Your task to perform on an android device: open a bookmark in the chrome app Image 0: 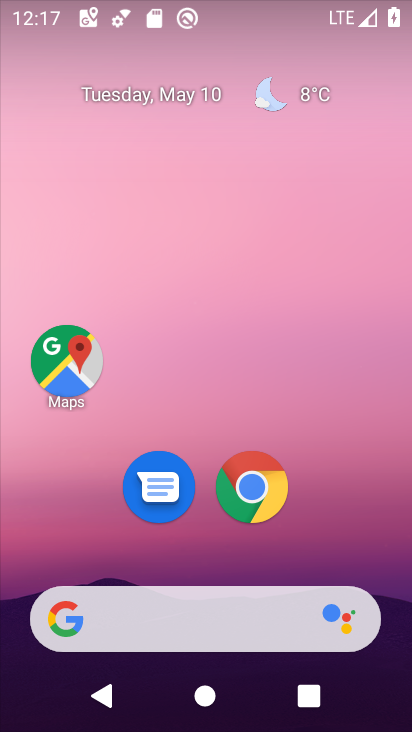
Step 0: drag from (213, 472) to (264, 86)
Your task to perform on an android device: open a bookmark in the chrome app Image 1: 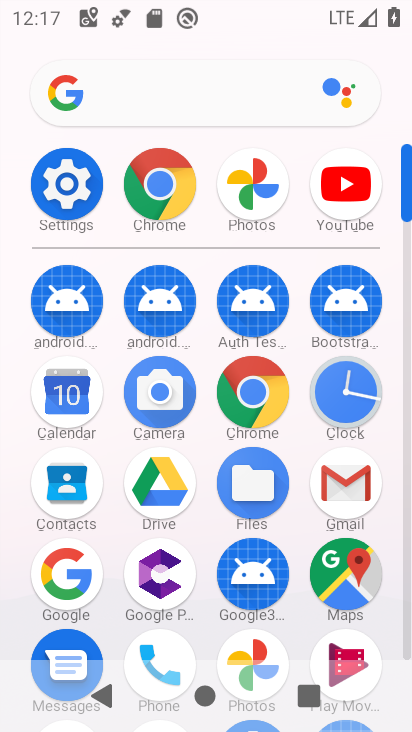
Step 1: click (245, 384)
Your task to perform on an android device: open a bookmark in the chrome app Image 2: 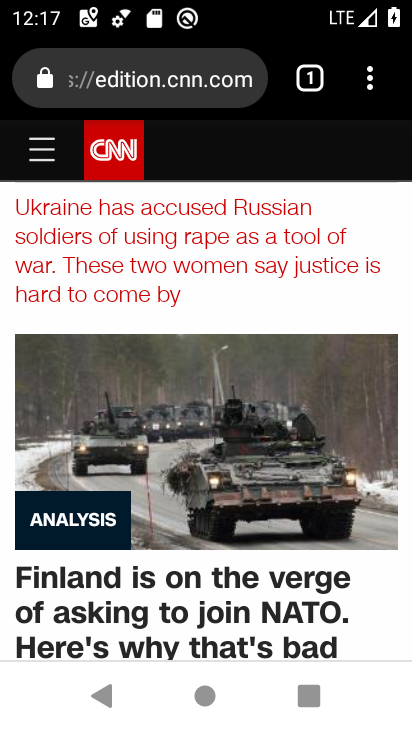
Step 2: click (372, 73)
Your task to perform on an android device: open a bookmark in the chrome app Image 3: 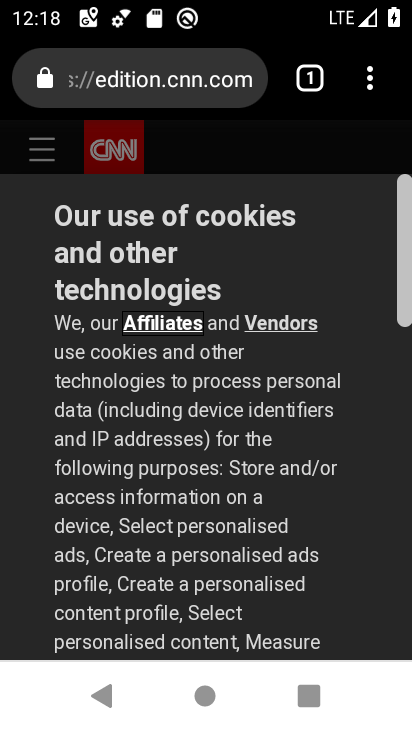
Step 3: drag from (203, 598) to (247, 149)
Your task to perform on an android device: open a bookmark in the chrome app Image 4: 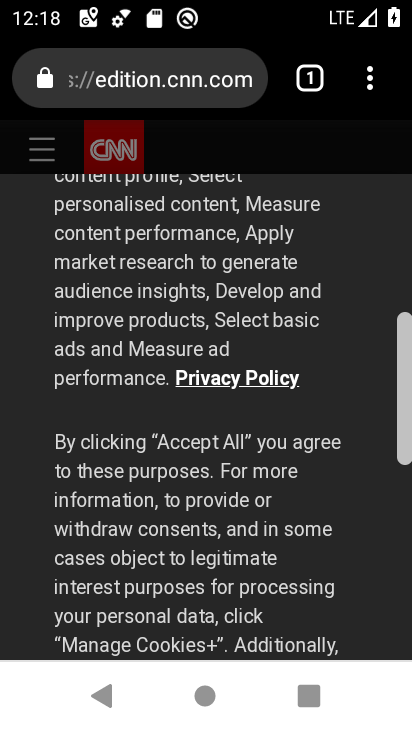
Step 4: drag from (225, 621) to (283, 175)
Your task to perform on an android device: open a bookmark in the chrome app Image 5: 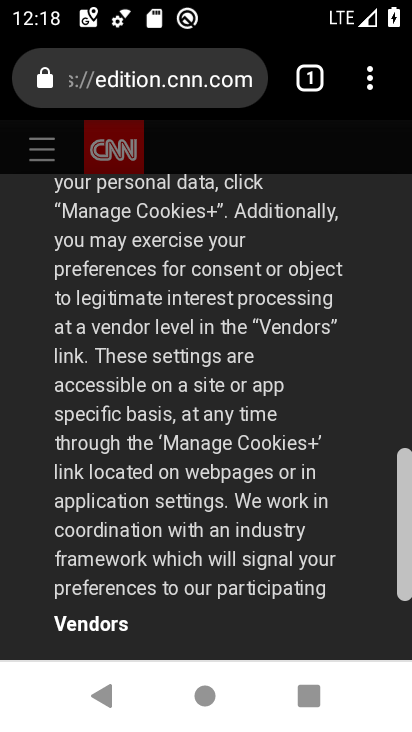
Step 5: drag from (197, 577) to (217, 243)
Your task to perform on an android device: open a bookmark in the chrome app Image 6: 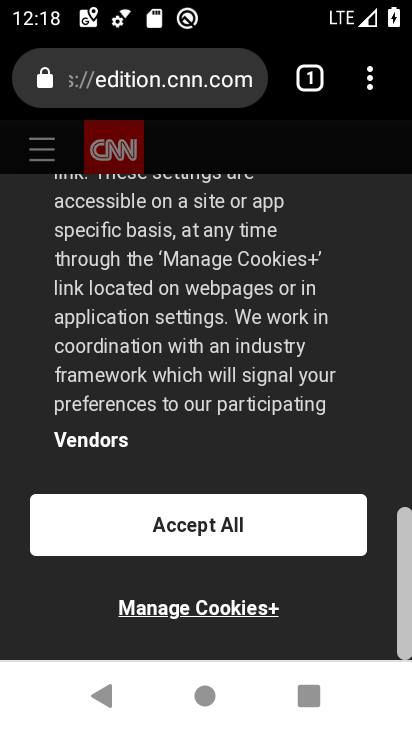
Step 6: click (202, 527)
Your task to perform on an android device: open a bookmark in the chrome app Image 7: 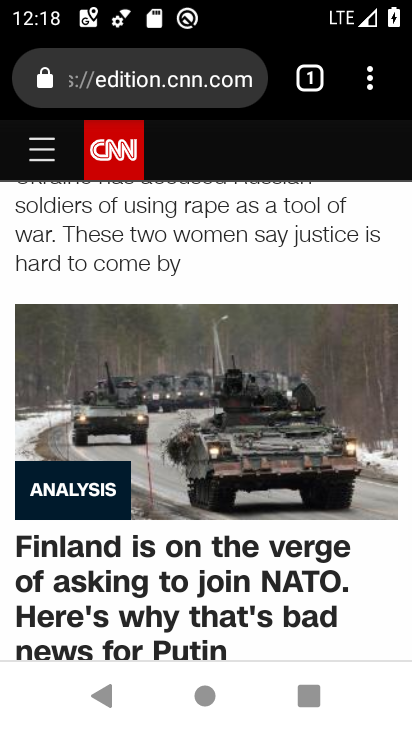
Step 7: click (372, 82)
Your task to perform on an android device: open a bookmark in the chrome app Image 8: 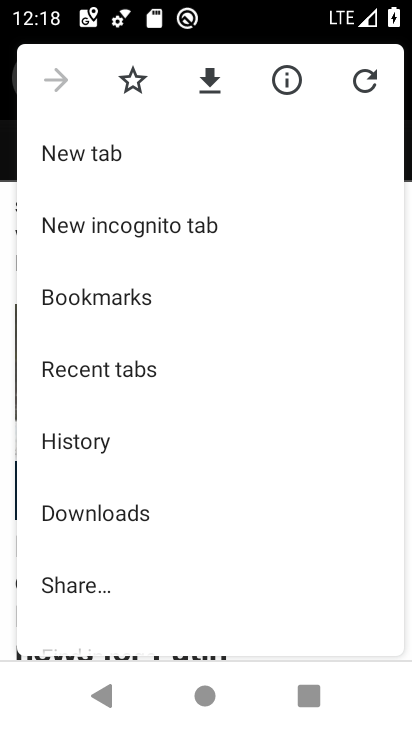
Step 8: click (161, 294)
Your task to perform on an android device: open a bookmark in the chrome app Image 9: 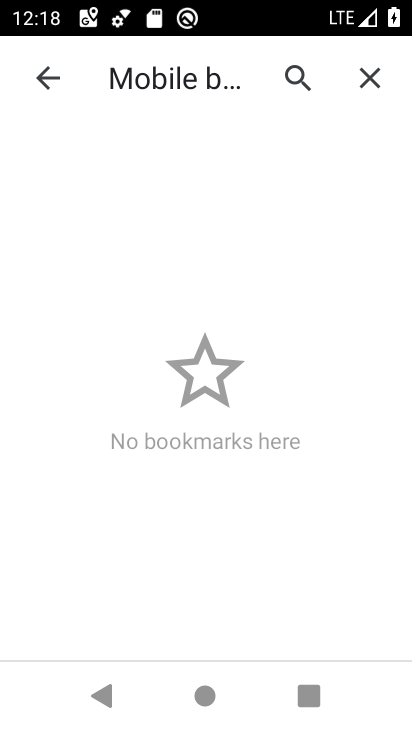
Step 9: task complete